Your task to perform on an android device: Open the calendar and show me this week's events? Image 0: 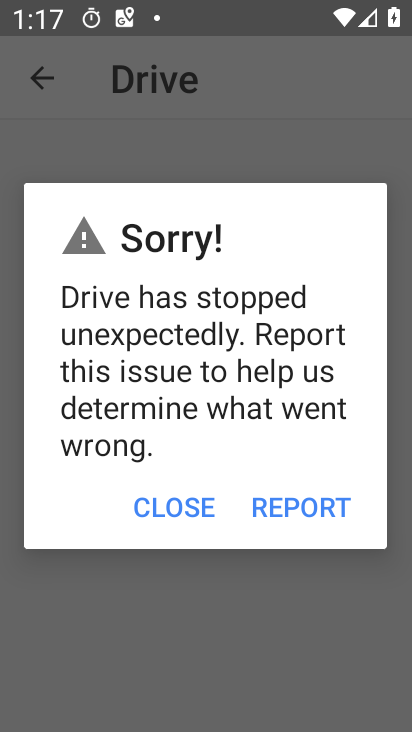
Step 0: press home button
Your task to perform on an android device: Open the calendar and show me this week's events? Image 1: 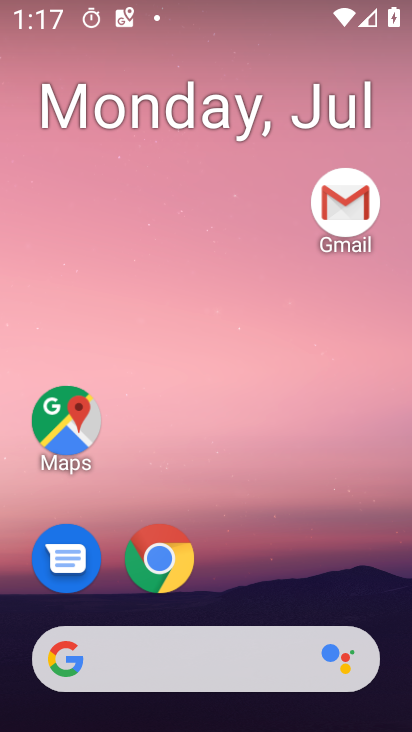
Step 1: drag from (271, 582) to (287, 54)
Your task to perform on an android device: Open the calendar and show me this week's events? Image 2: 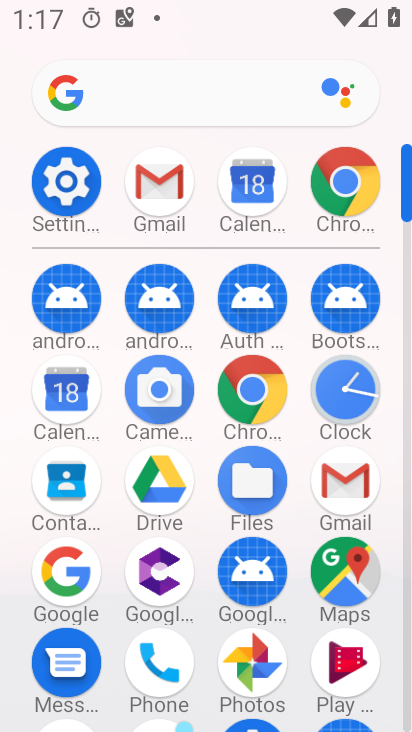
Step 2: click (69, 394)
Your task to perform on an android device: Open the calendar and show me this week's events? Image 3: 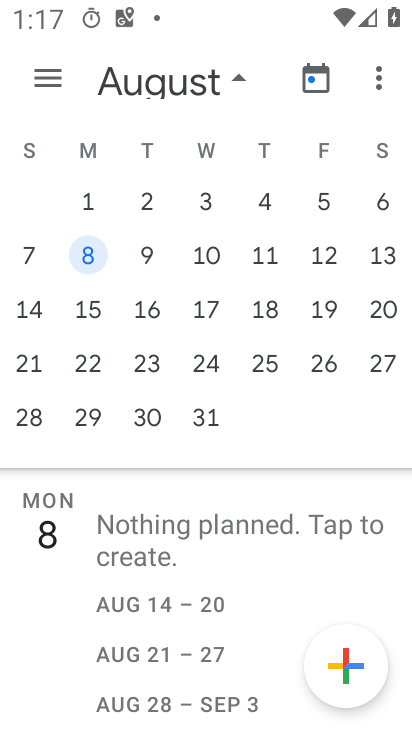
Step 3: task complete